Your task to perform on an android device: change text size in settings app Image 0: 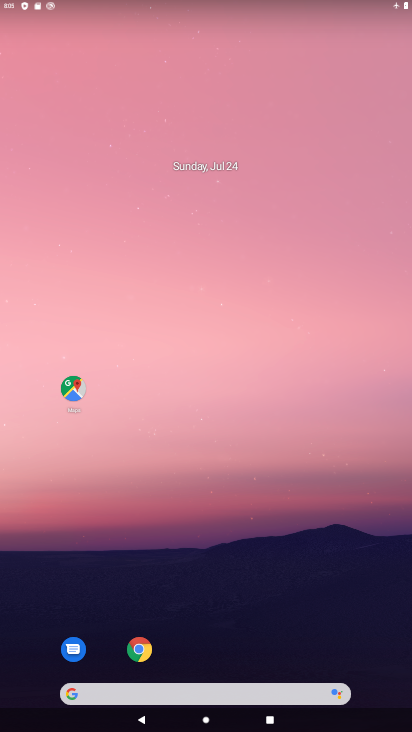
Step 0: drag from (188, 683) to (191, 66)
Your task to perform on an android device: change text size in settings app Image 1: 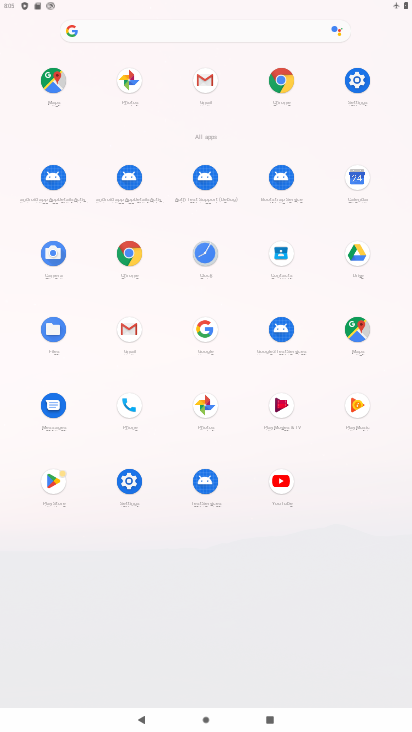
Step 1: click (124, 483)
Your task to perform on an android device: change text size in settings app Image 2: 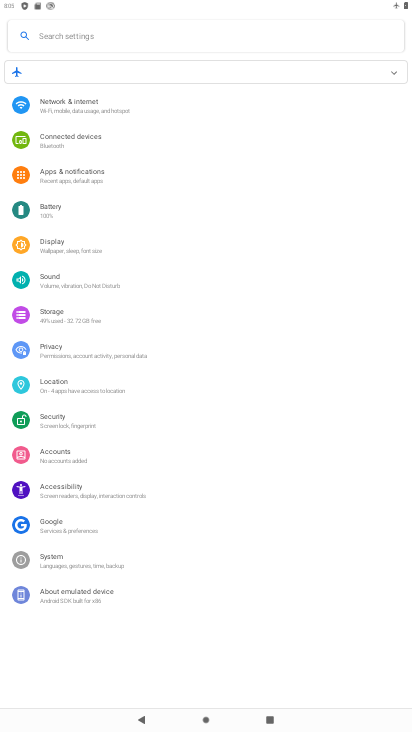
Step 2: click (69, 248)
Your task to perform on an android device: change text size in settings app Image 3: 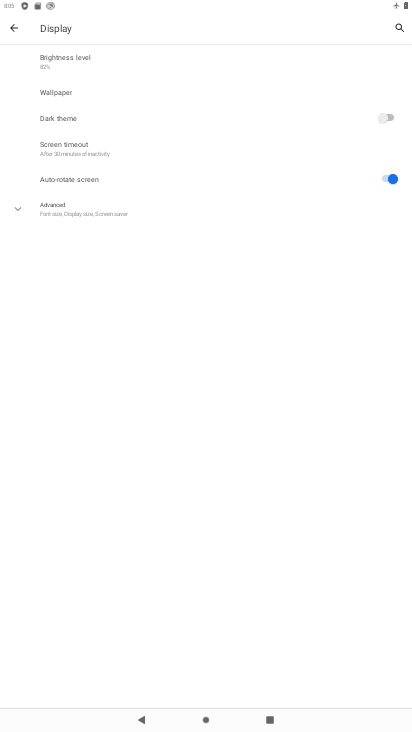
Step 3: click (75, 211)
Your task to perform on an android device: change text size in settings app Image 4: 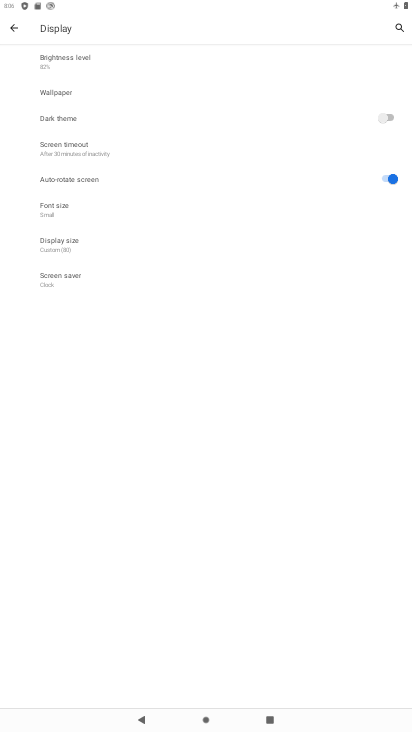
Step 4: click (68, 215)
Your task to perform on an android device: change text size in settings app Image 5: 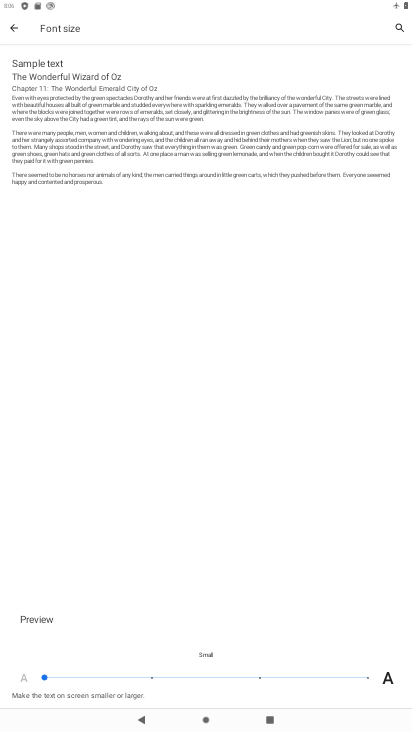
Step 5: click (150, 674)
Your task to perform on an android device: change text size in settings app Image 6: 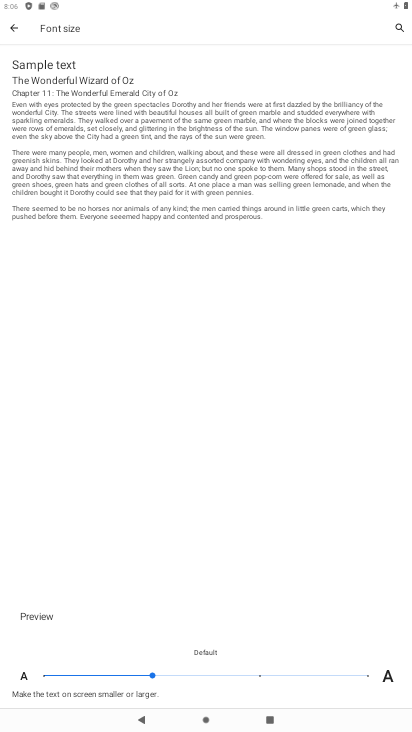
Step 6: task complete